Your task to perform on an android device: star an email in the gmail app Image 0: 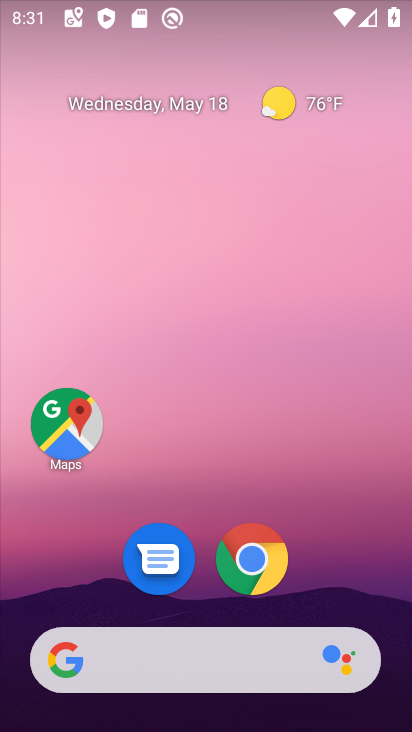
Step 0: drag from (331, 573) to (344, 151)
Your task to perform on an android device: star an email in the gmail app Image 1: 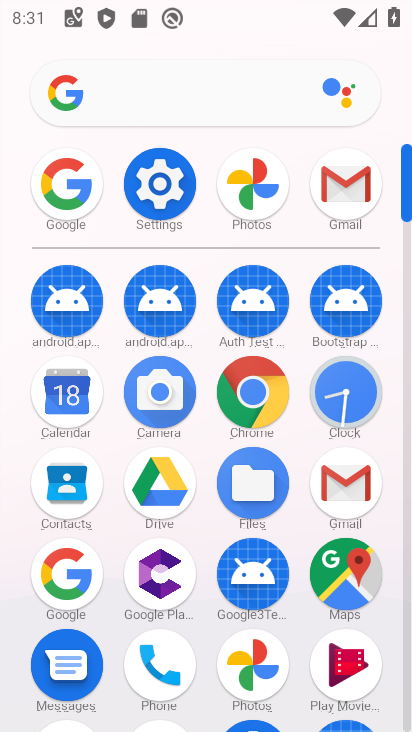
Step 1: click (347, 190)
Your task to perform on an android device: star an email in the gmail app Image 2: 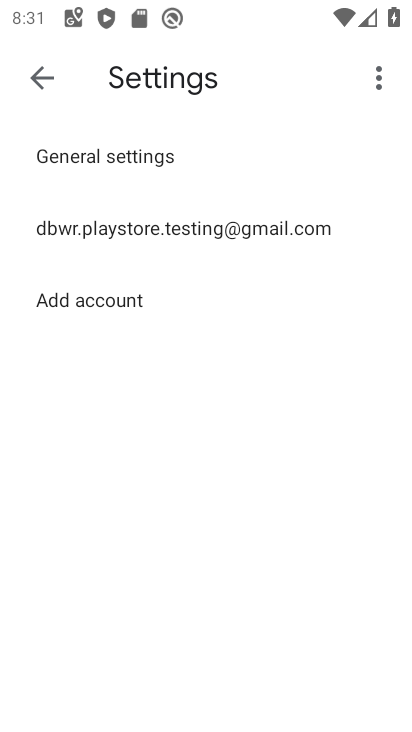
Step 2: press back button
Your task to perform on an android device: star an email in the gmail app Image 3: 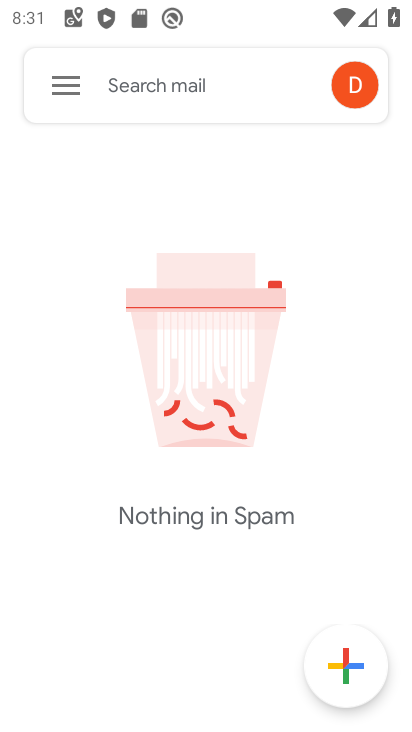
Step 3: click (67, 78)
Your task to perform on an android device: star an email in the gmail app Image 4: 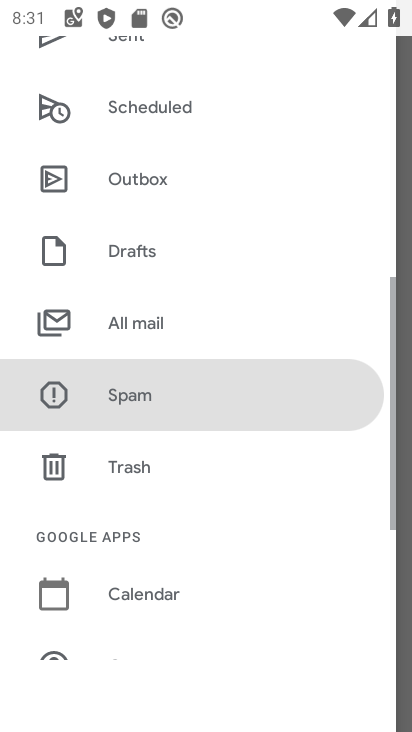
Step 4: click (148, 316)
Your task to perform on an android device: star an email in the gmail app Image 5: 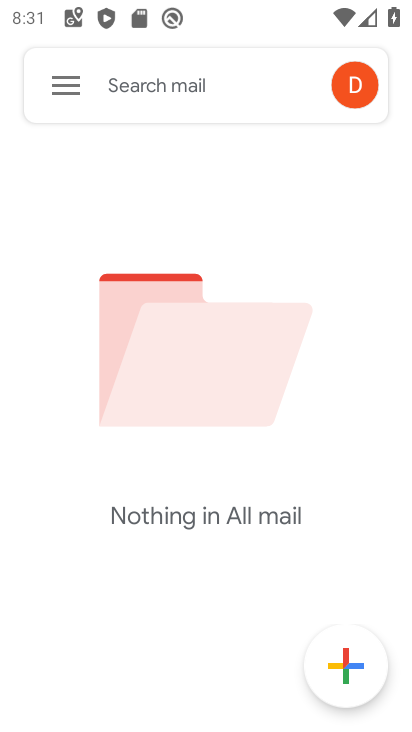
Step 5: task complete